Your task to perform on an android device: See recent photos Image 0: 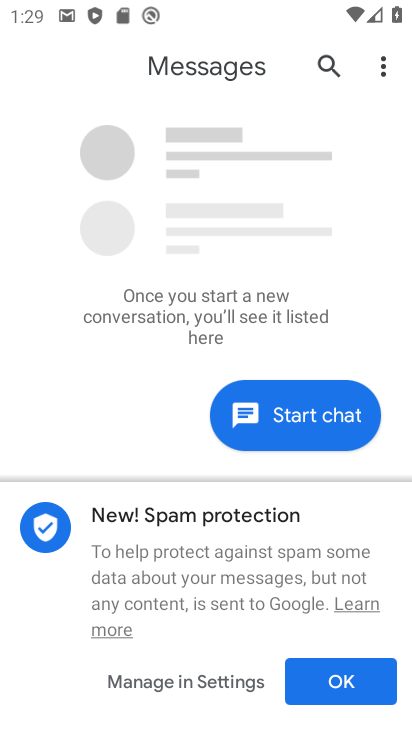
Step 0: press home button
Your task to perform on an android device: See recent photos Image 1: 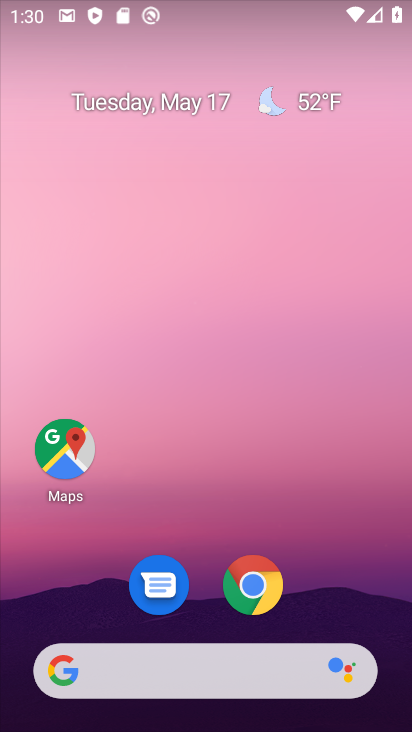
Step 1: drag from (230, 514) to (228, 104)
Your task to perform on an android device: See recent photos Image 2: 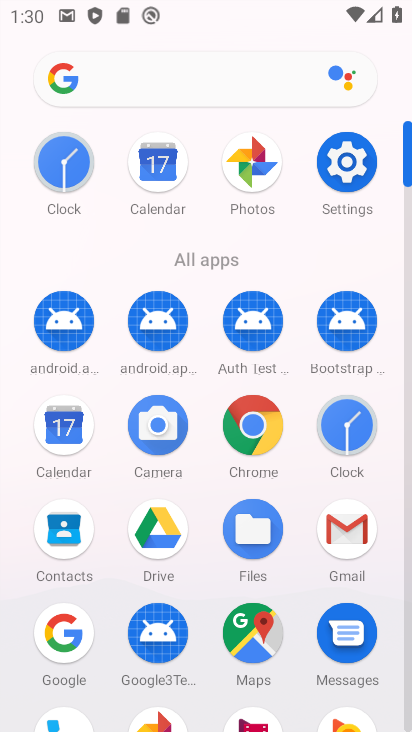
Step 2: click (243, 156)
Your task to perform on an android device: See recent photos Image 3: 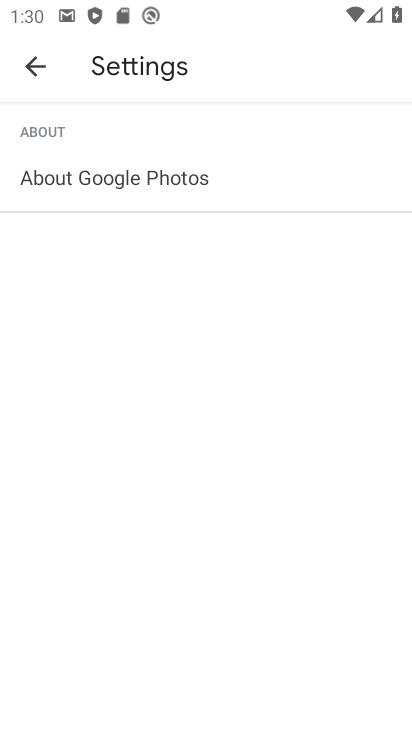
Step 3: click (32, 57)
Your task to perform on an android device: See recent photos Image 4: 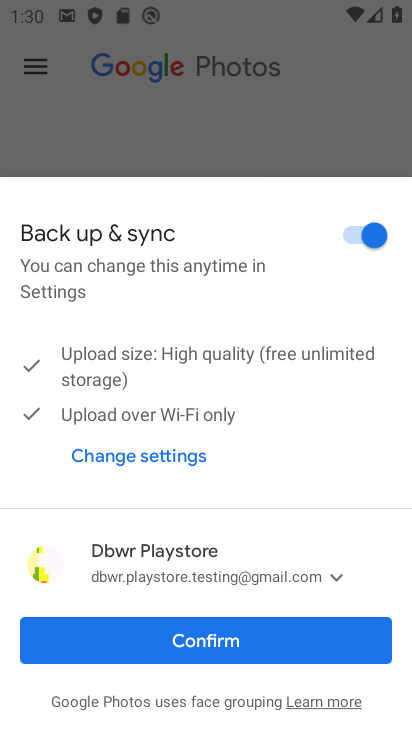
Step 4: click (218, 635)
Your task to perform on an android device: See recent photos Image 5: 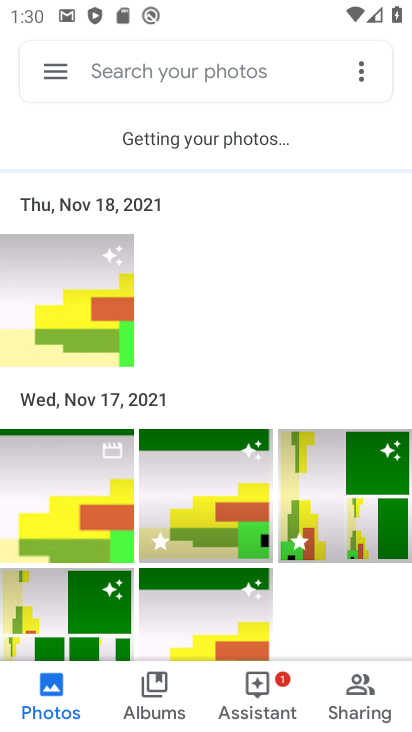
Step 5: task complete